Your task to perform on an android device: Open calendar and show me the third week of next month Image 0: 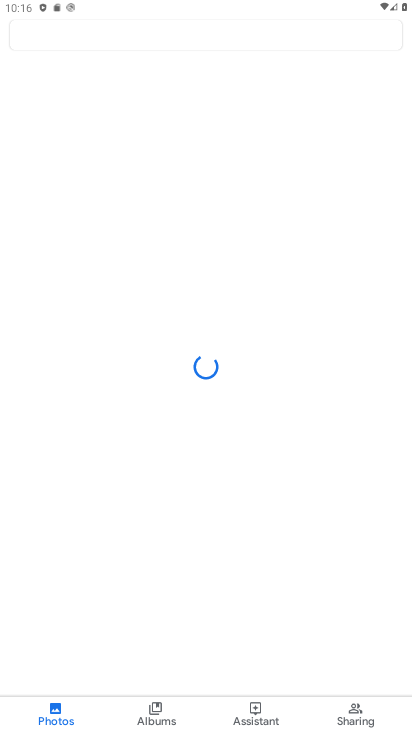
Step 0: press home button
Your task to perform on an android device: Open calendar and show me the third week of next month Image 1: 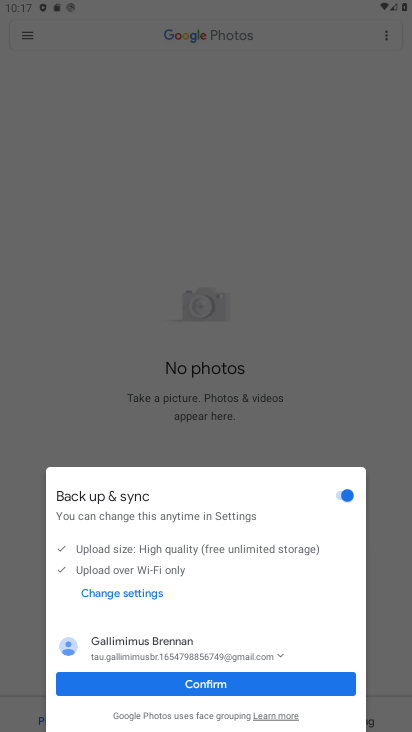
Step 1: press home button
Your task to perform on an android device: Open calendar and show me the third week of next month Image 2: 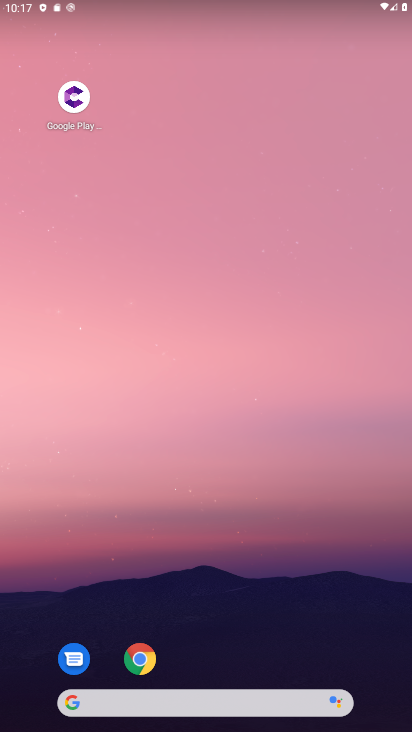
Step 2: drag from (326, 656) to (344, 158)
Your task to perform on an android device: Open calendar and show me the third week of next month Image 3: 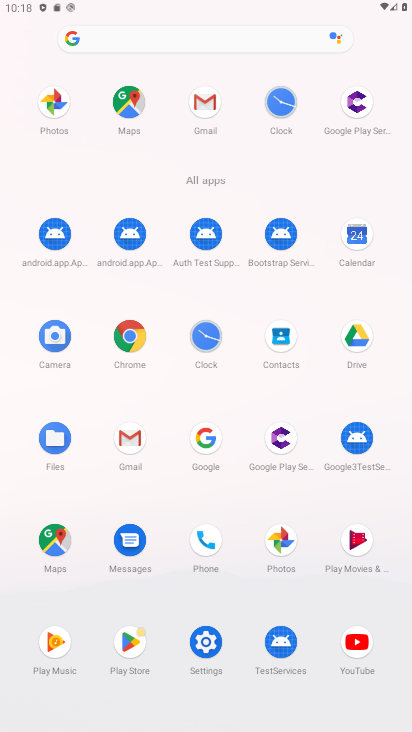
Step 3: click (350, 231)
Your task to perform on an android device: Open calendar and show me the third week of next month Image 4: 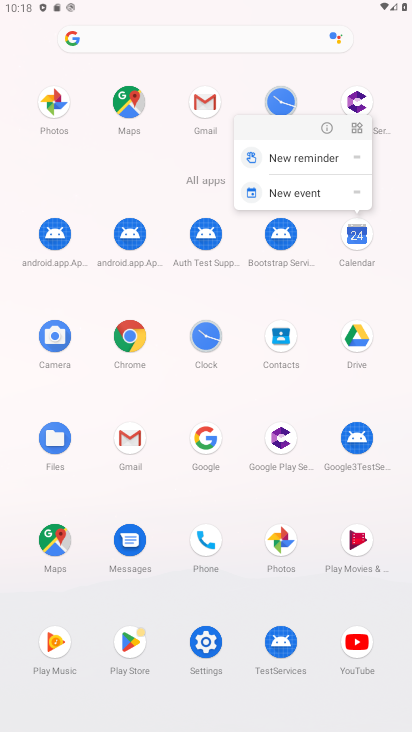
Step 4: click (362, 229)
Your task to perform on an android device: Open calendar and show me the third week of next month Image 5: 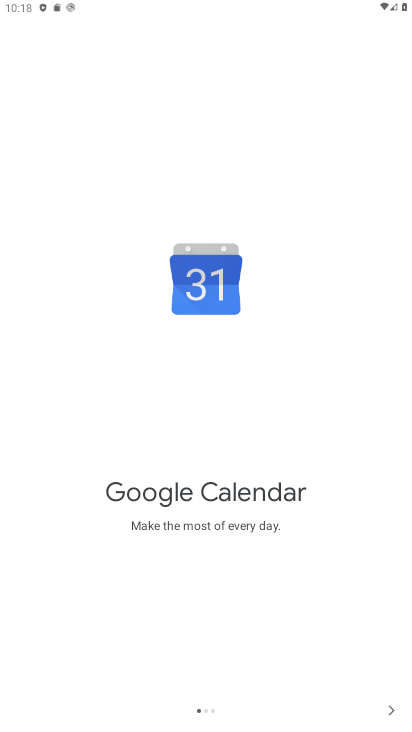
Step 5: click (387, 696)
Your task to perform on an android device: Open calendar and show me the third week of next month Image 6: 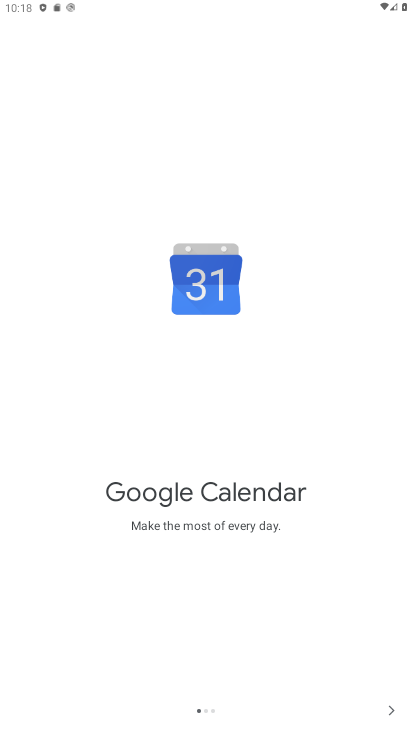
Step 6: click (387, 696)
Your task to perform on an android device: Open calendar and show me the third week of next month Image 7: 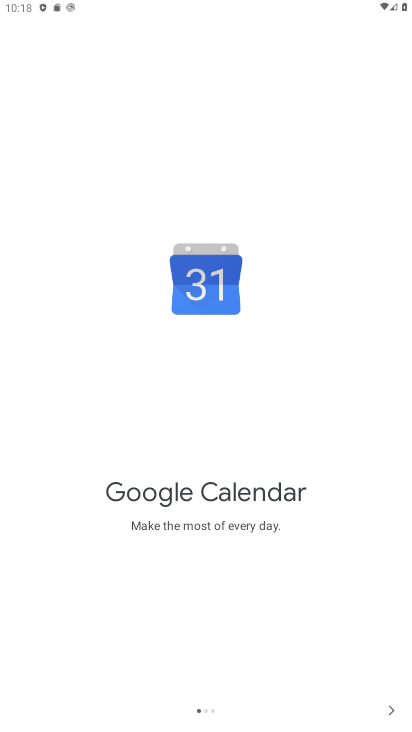
Step 7: click (368, 707)
Your task to perform on an android device: Open calendar and show me the third week of next month Image 8: 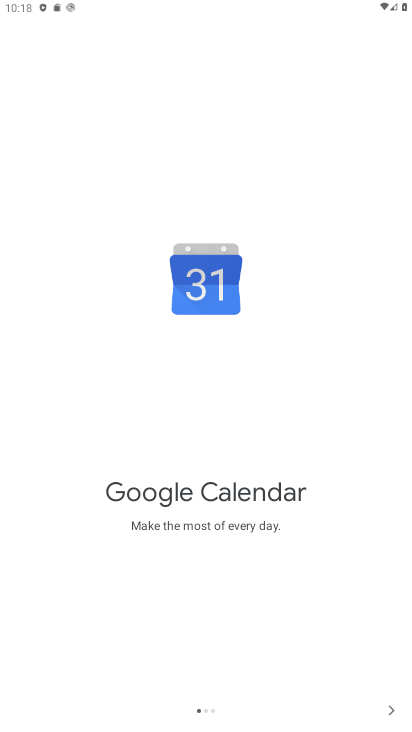
Step 8: click (388, 697)
Your task to perform on an android device: Open calendar and show me the third week of next month Image 9: 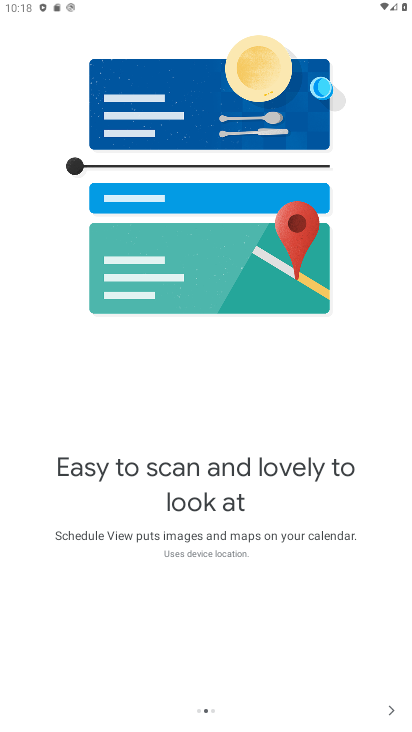
Step 9: click (388, 703)
Your task to perform on an android device: Open calendar and show me the third week of next month Image 10: 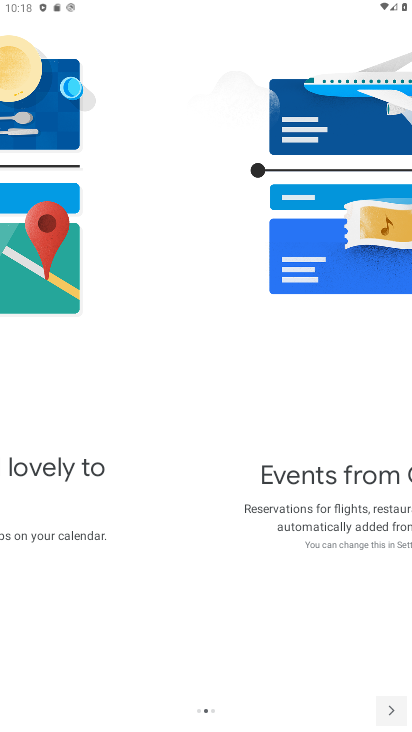
Step 10: click (388, 703)
Your task to perform on an android device: Open calendar and show me the third week of next month Image 11: 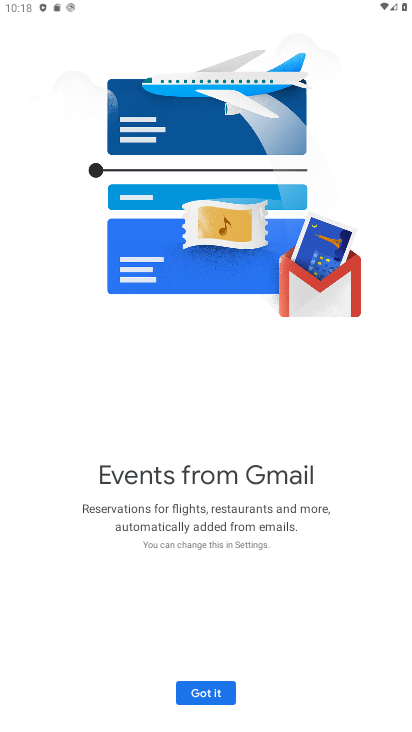
Step 11: click (215, 689)
Your task to perform on an android device: Open calendar and show me the third week of next month Image 12: 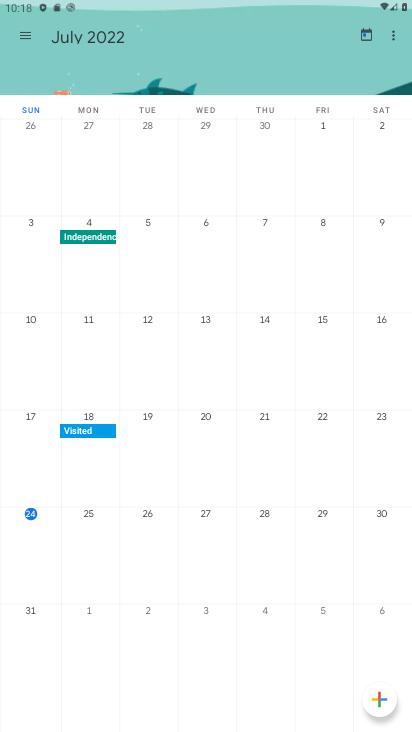
Step 12: click (84, 33)
Your task to perform on an android device: Open calendar and show me the third week of next month Image 13: 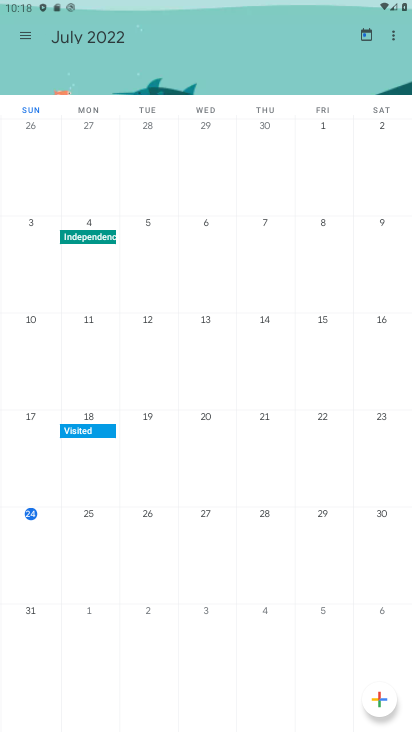
Step 13: drag from (299, 293) to (19, 293)
Your task to perform on an android device: Open calendar and show me the third week of next month Image 14: 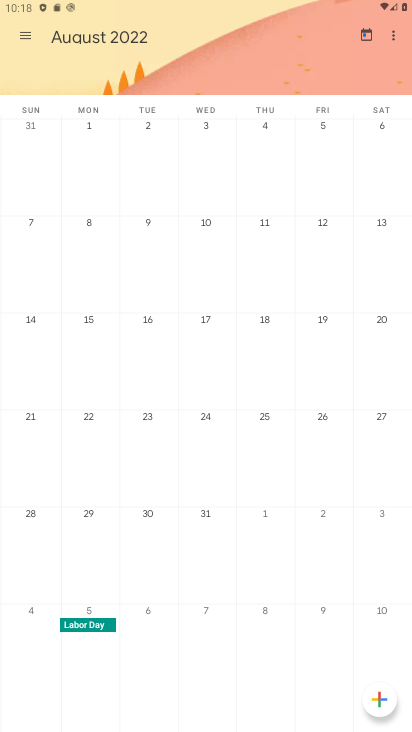
Step 14: click (319, 411)
Your task to perform on an android device: Open calendar and show me the third week of next month Image 15: 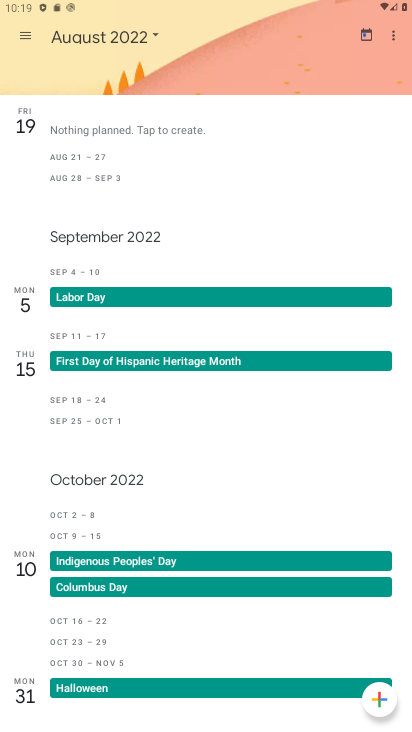
Step 15: task complete